Your task to perform on an android device: Add "jbl flip 4" to the cart on walmart Image 0: 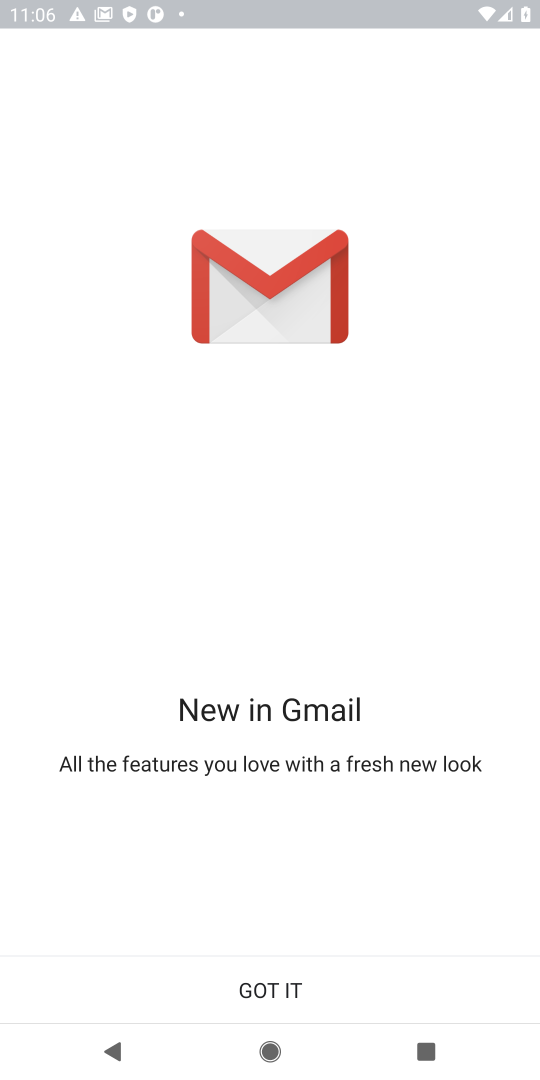
Step 0: press home button
Your task to perform on an android device: Add "jbl flip 4" to the cart on walmart Image 1: 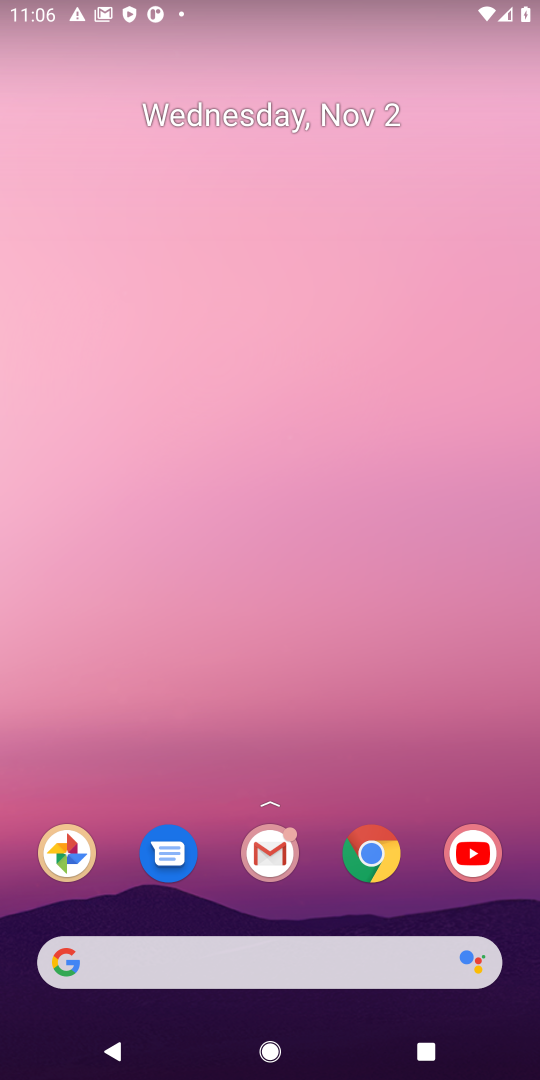
Step 1: click (373, 854)
Your task to perform on an android device: Add "jbl flip 4" to the cart on walmart Image 2: 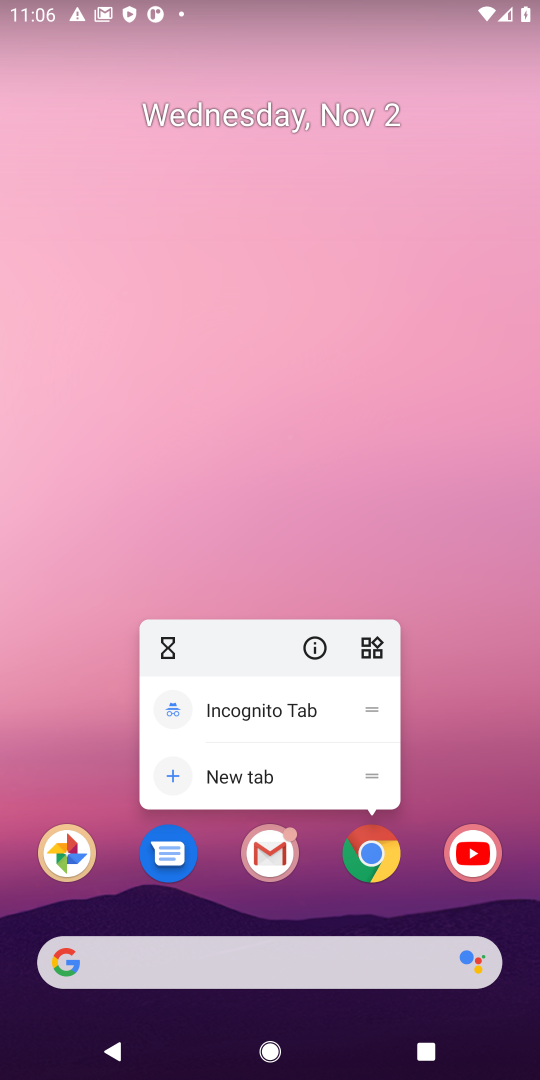
Step 2: click (369, 859)
Your task to perform on an android device: Add "jbl flip 4" to the cart on walmart Image 3: 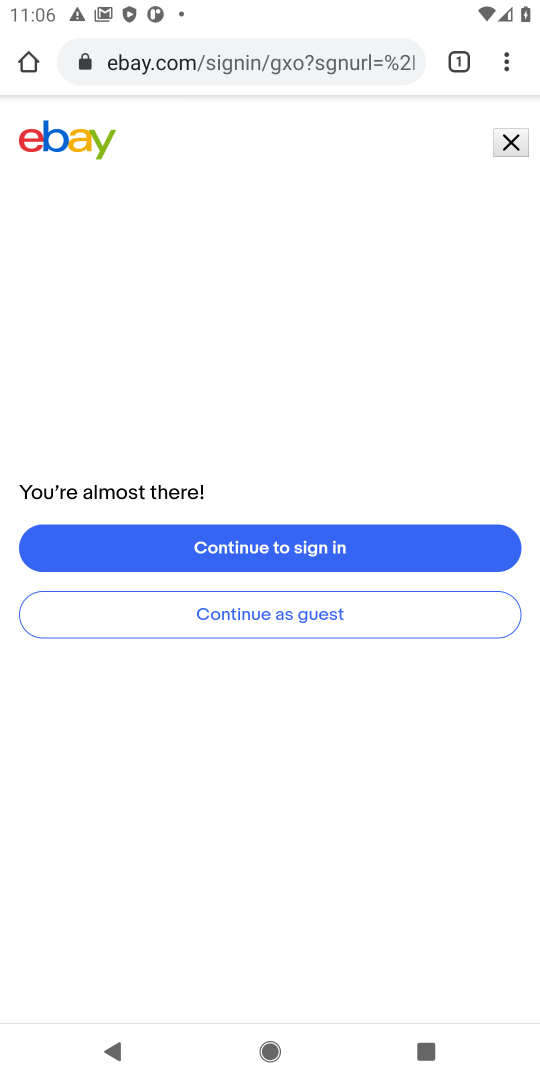
Step 3: click (358, 63)
Your task to perform on an android device: Add "jbl flip 4" to the cart on walmart Image 4: 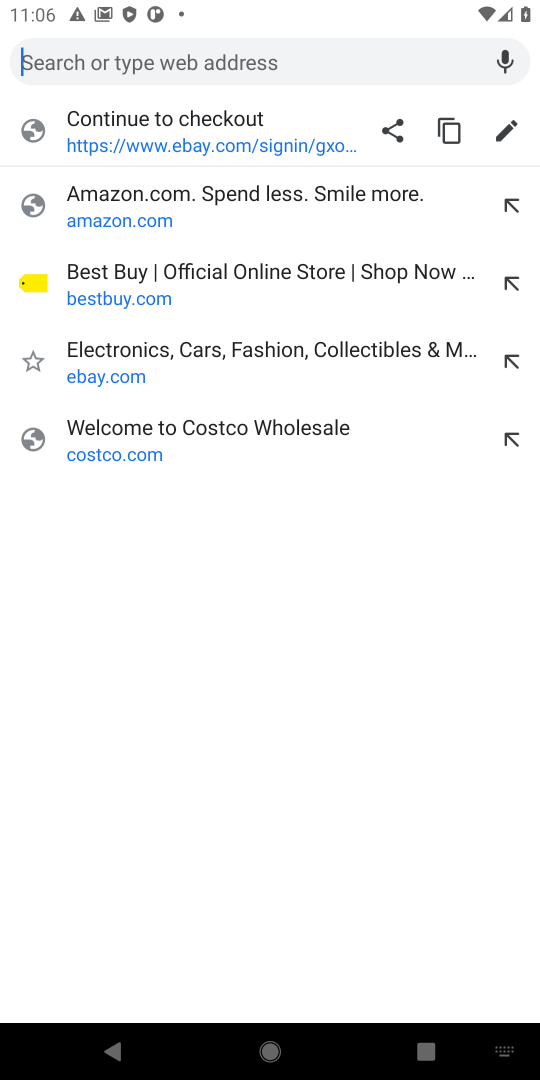
Step 4: type "walmart"
Your task to perform on an android device: Add "jbl flip 4" to the cart on walmart Image 5: 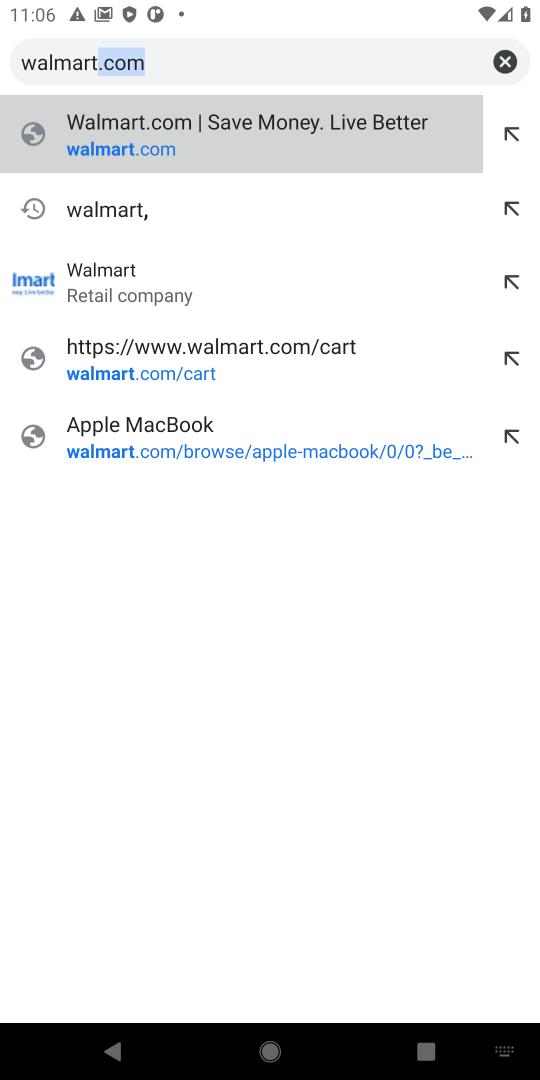
Step 5: press enter
Your task to perform on an android device: Add "jbl flip 4" to the cart on walmart Image 6: 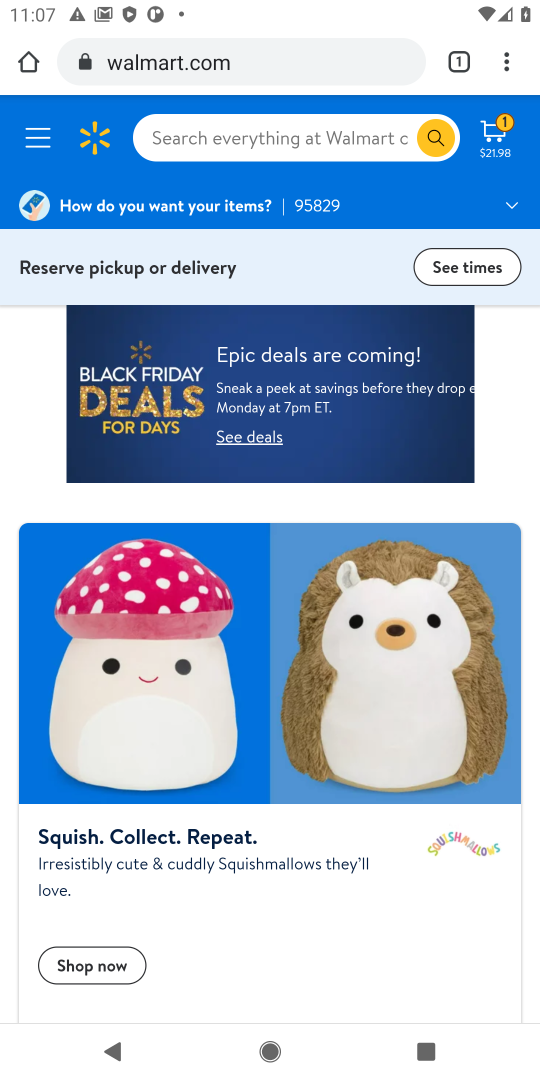
Step 6: click (253, 134)
Your task to perform on an android device: Add "jbl flip 4" to the cart on walmart Image 7: 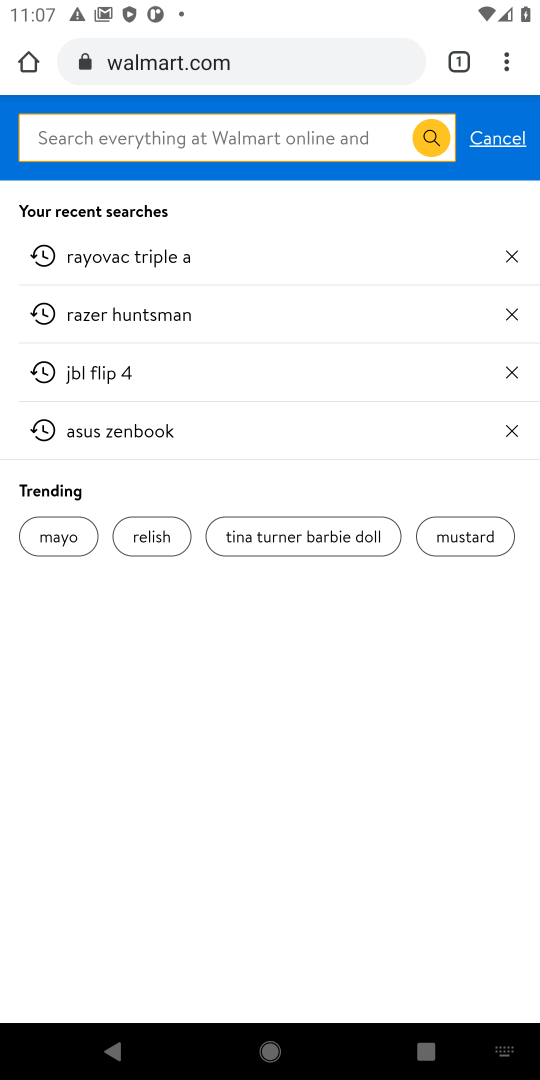
Step 7: type "jbl flip 4"
Your task to perform on an android device: Add "jbl flip 4" to the cart on walmart Image 8: 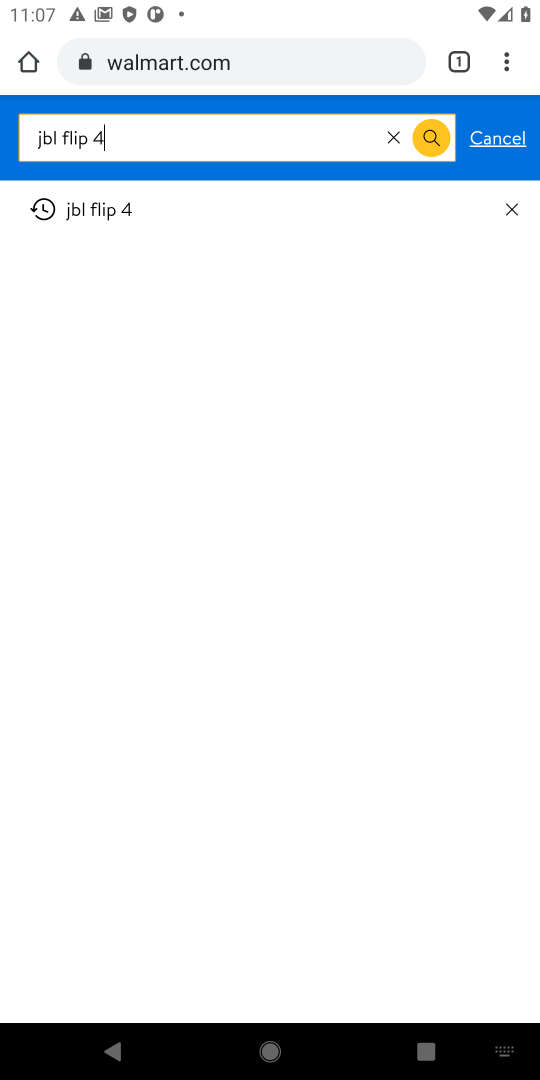
Step 8: press enter
Your task to perform on an android device: Add "jbl flip 4" to the cart on walmart Image 9: 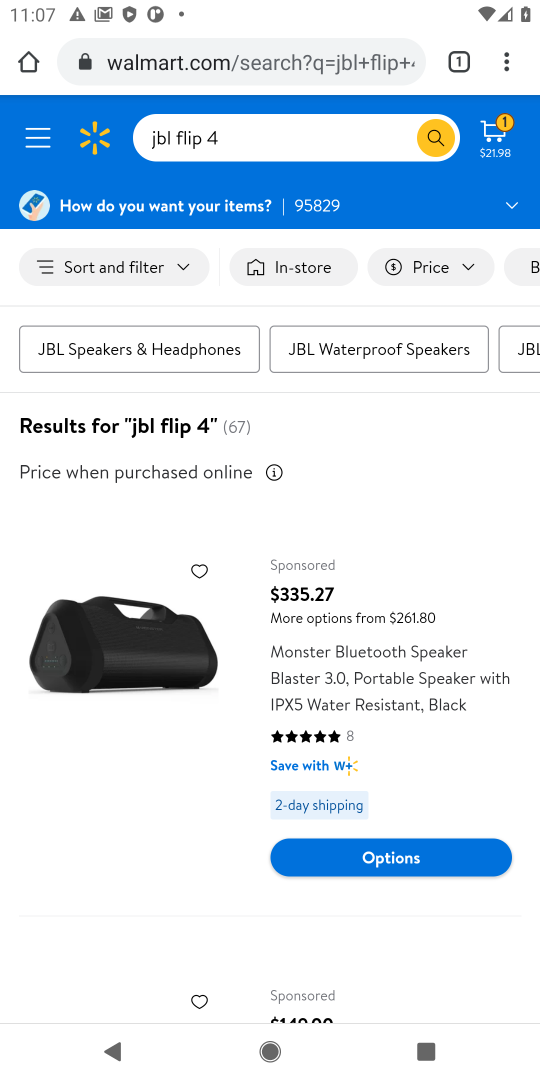
Step 9: click (418, 679)
Your task to perform on an android device: Add "jbl flip 4" to the cart on walmart Image 10: 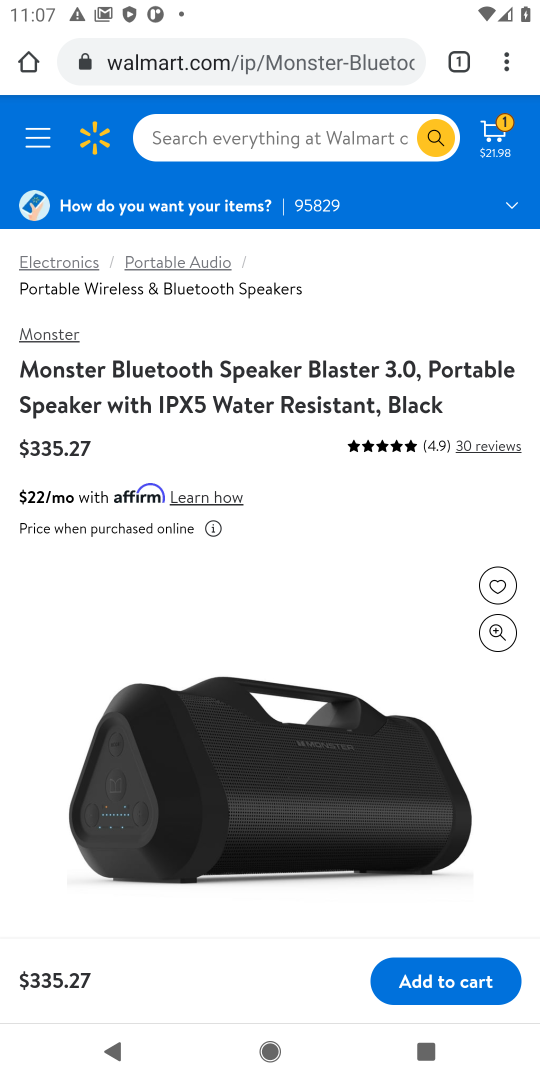
Step 10: task complete